Your task to perform on an android device: uninstall "Roku - Official Remote Control" Image 0: 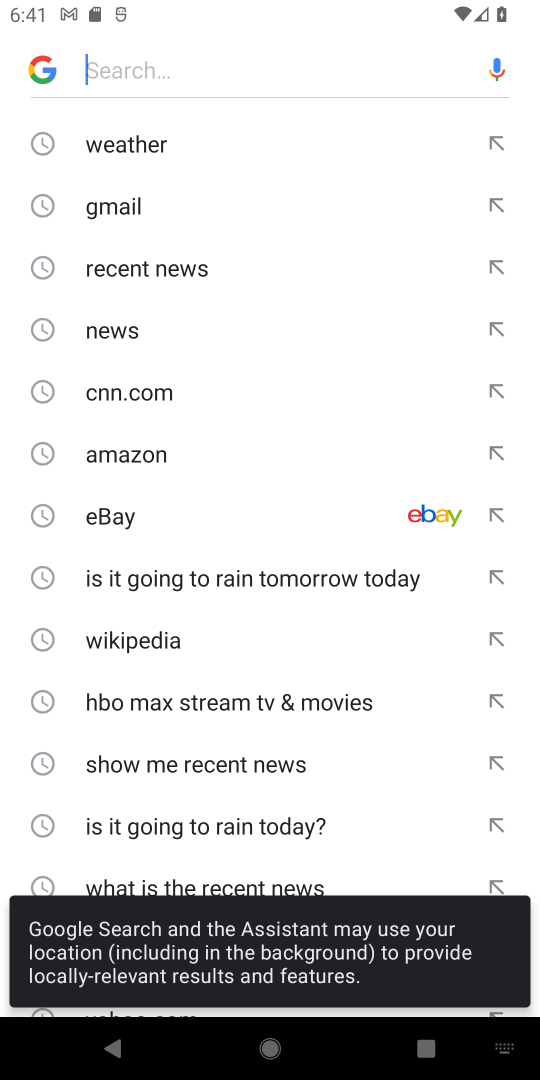
Step 0: press home button
Your task to perform on an android device: uninstall "Roku - Official Remote Control" Image 1: 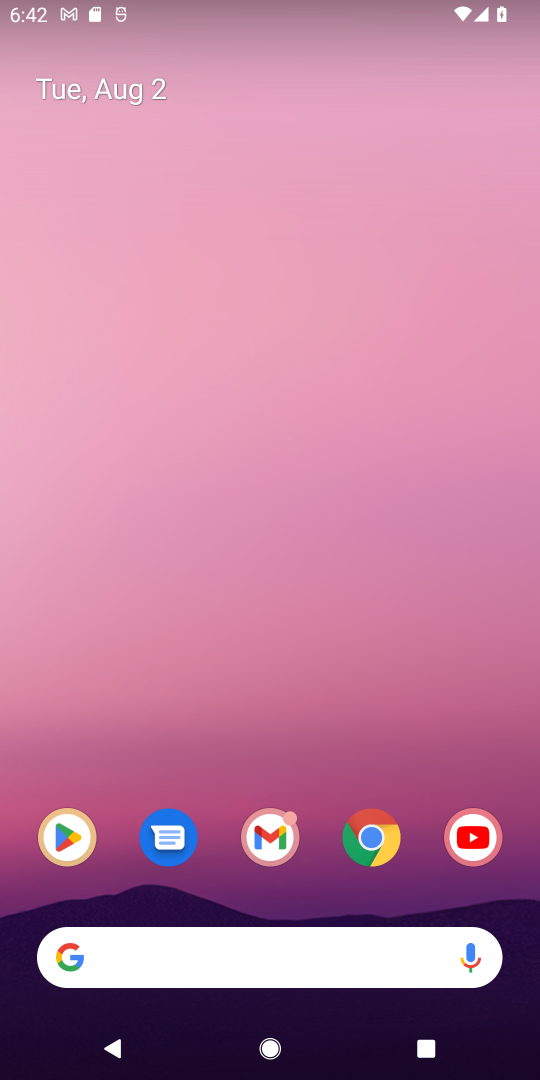
Step 1: drag from (229, 894) to (203, 358)
Your task to perform on an android device: uninstall "Roku - Official Remote Control" Image 2: 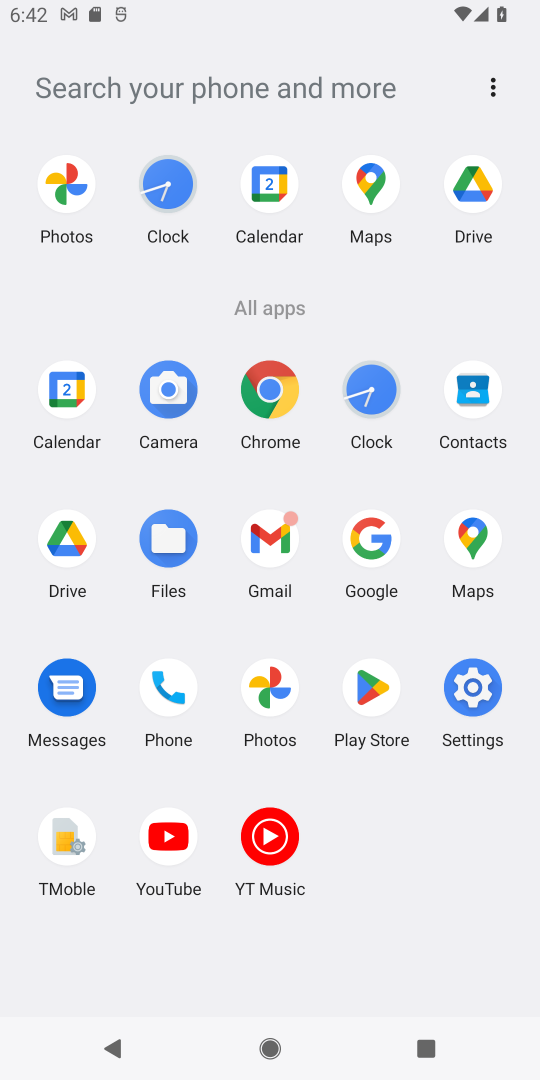
Step 2: click (370, 690)
Your task to perform on an android device: uninstall "Roku - Official Remote Control" Image 3: 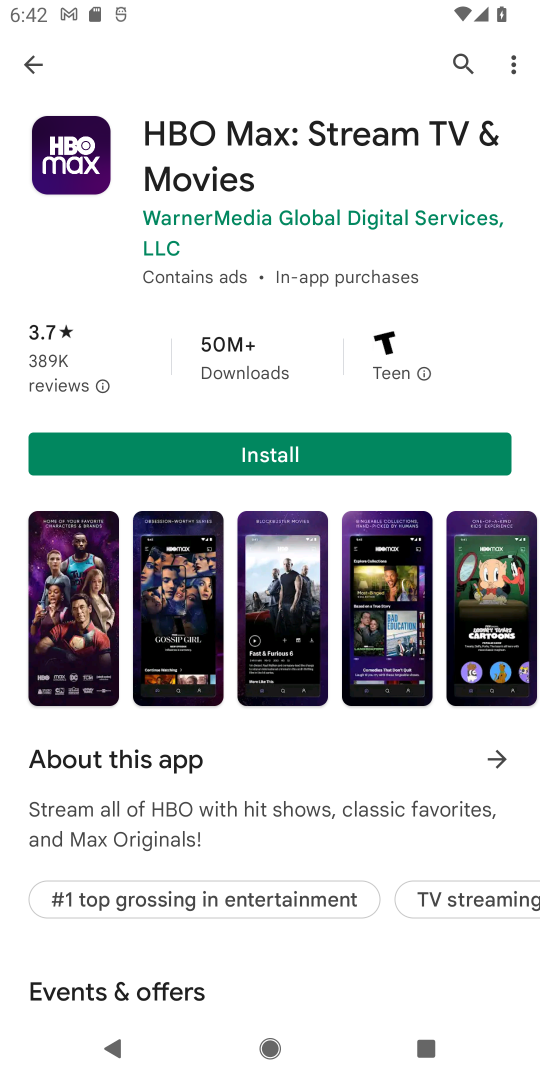
Step 3: drag from (293, 338) to (382, 894)
Your task to perform on an android device: uninstall "Roku - Official Remote Control" Image 4: 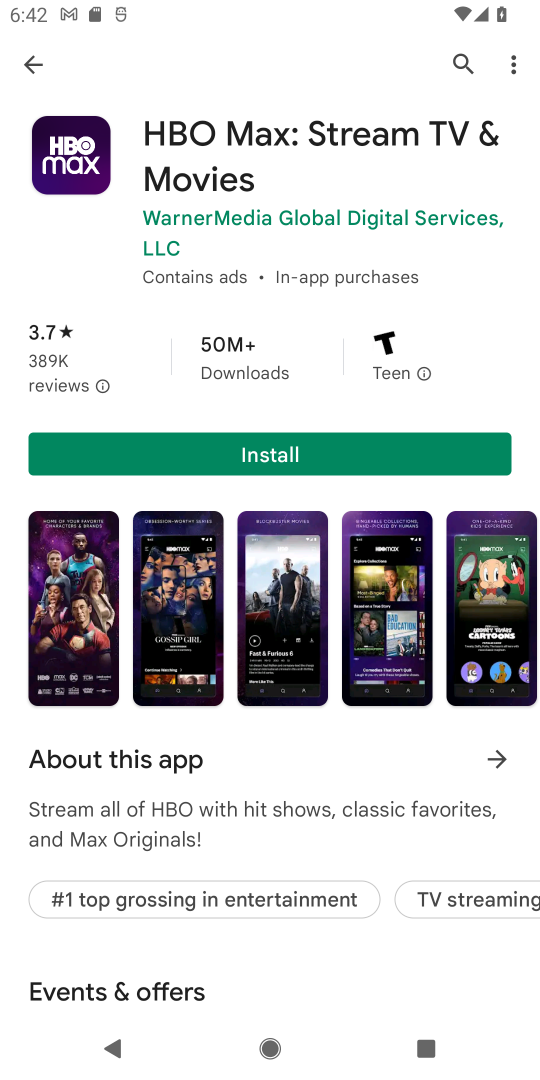
Step 4: click (449, 60)
Your task to perform on an android device: uninstall "Roku - Official Remote Control" Image 5: 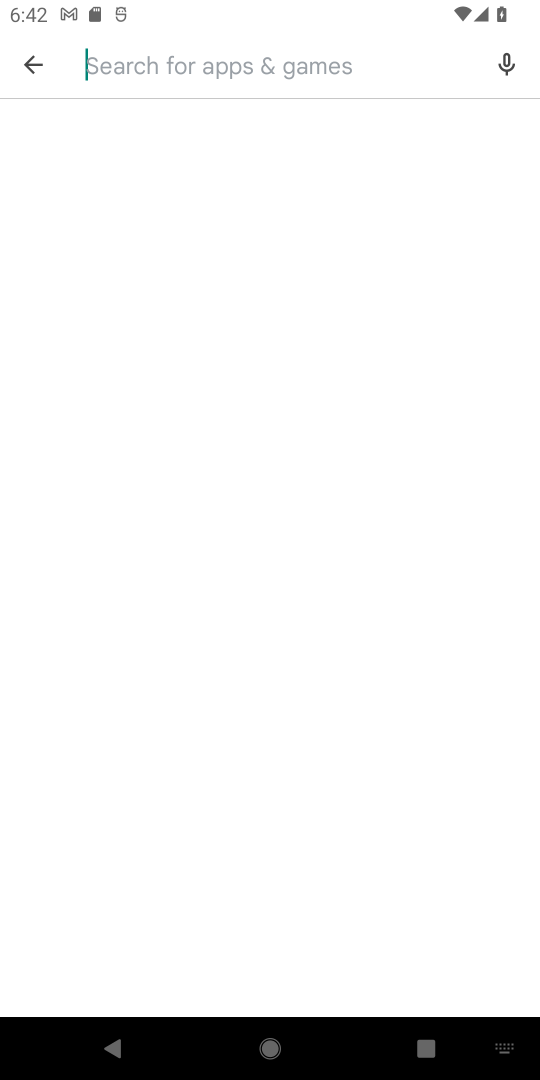
Step 5: type "Roku - Official Remote Control"
Your task to perform on an android device: uninstall "Roku - Official Remote Control" Image 6: 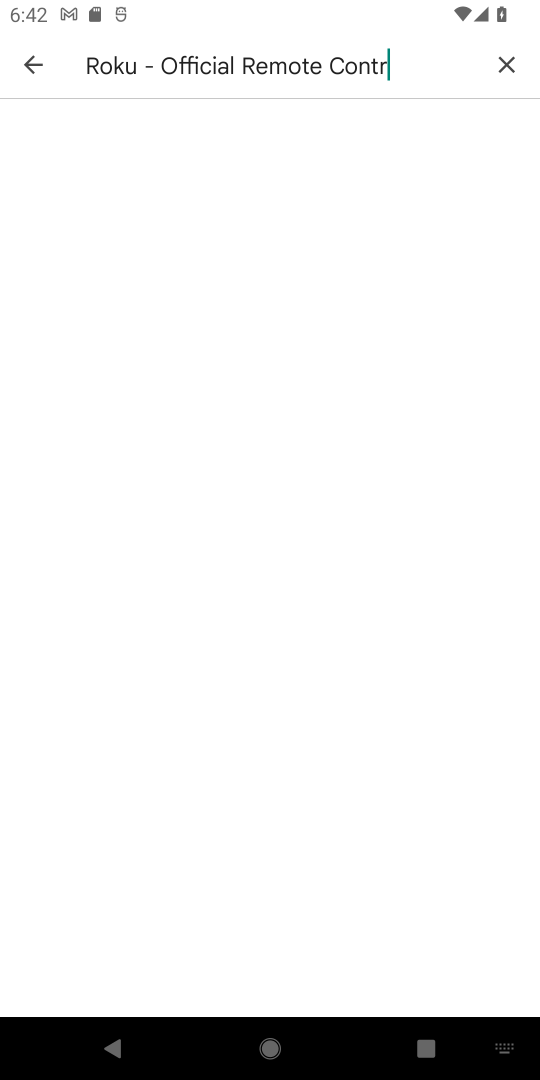
Step 6: type ""
Your task to perform on an android device: uninstall "Roku - Official Remote Control" Image 7: 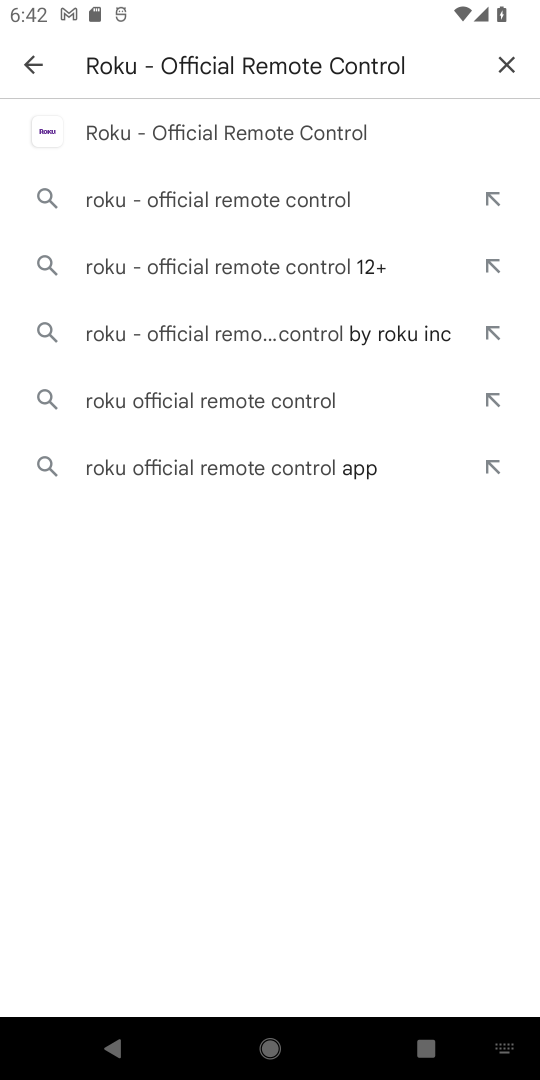
Step 7: click (153, 144)
Your task to perform on an android device: uninstall "Roku - Official Remote Control" Image 8: 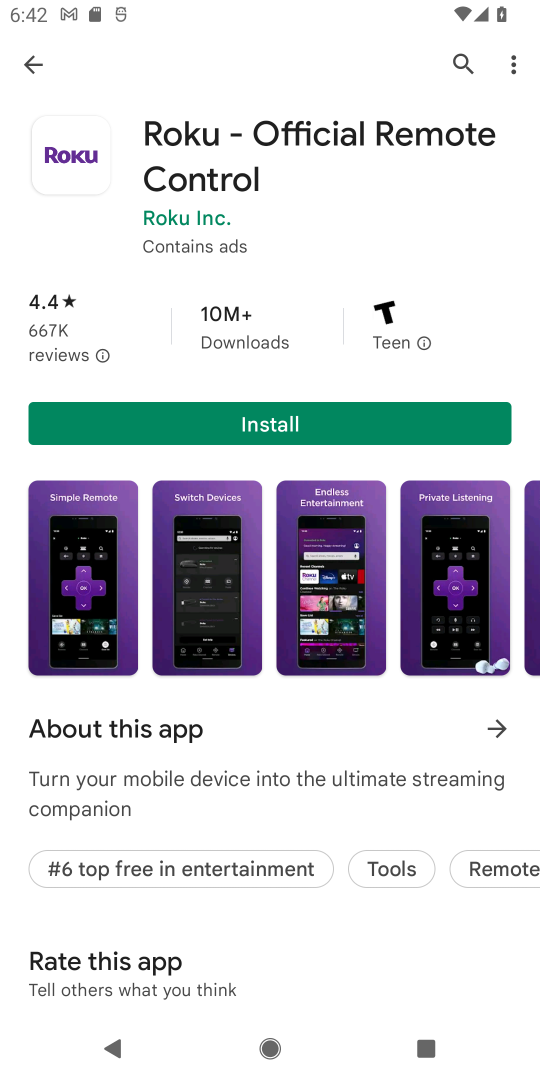
Step 8: task complete